Your task to perform on an android device: change keyboard looks Image 0: 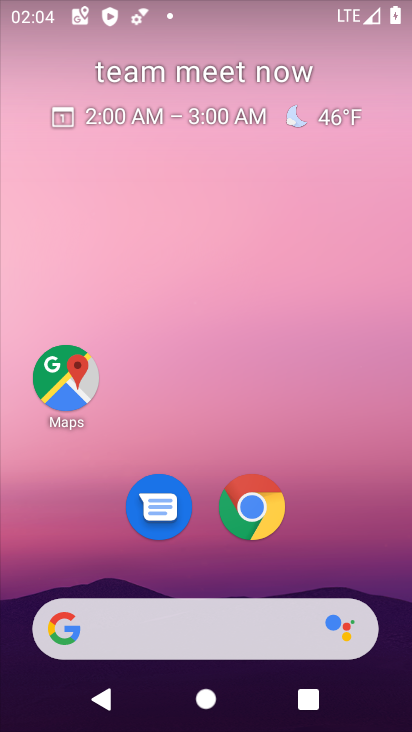
Step 0: drag from (268, 668) to (267, 292)
Your task to perform on an android device: change keyboard looks Image 1: 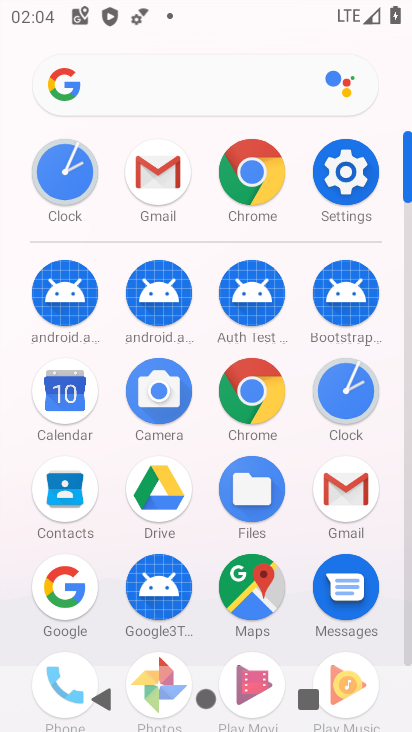
Step 1: click (359, 186)
Your task to perform on an android device: change keyboard looks Image 2: 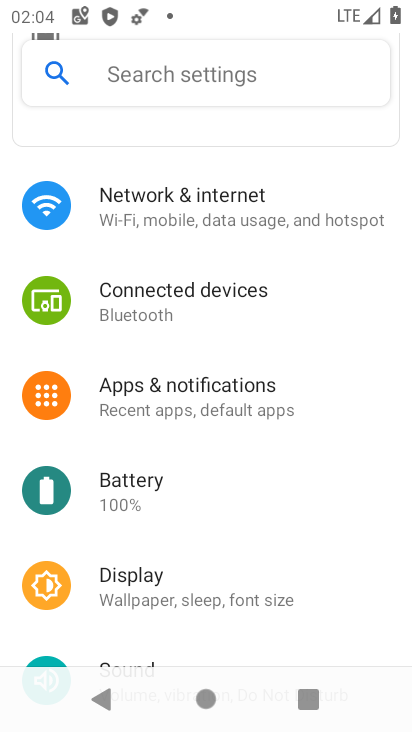
Step 2: click (208, 82)
Your task to perform on an android device: change keyboard looks Image 3: 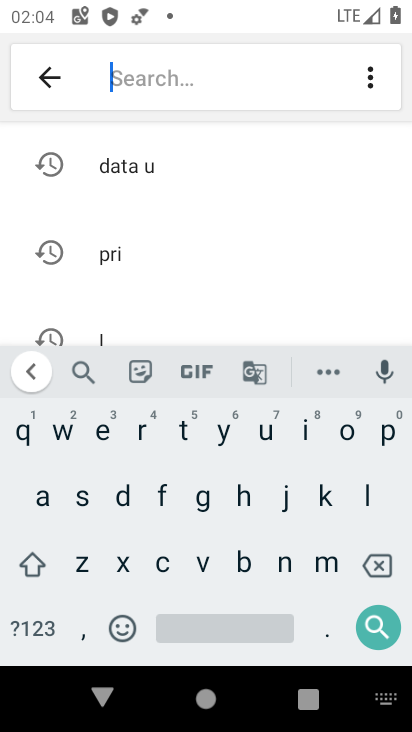
Step 3: click (331, 493)
Your task to perform on an android device: change keyboard looks Image 4: 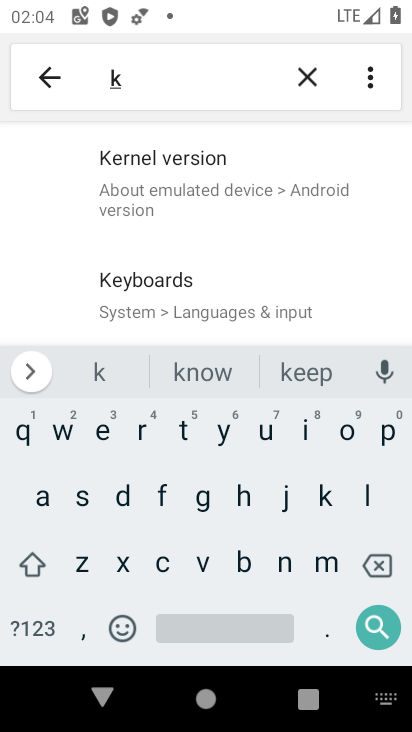
Step 4: click (155, 277)
Your task to perform on an android device: change keyboard looks Image 5: 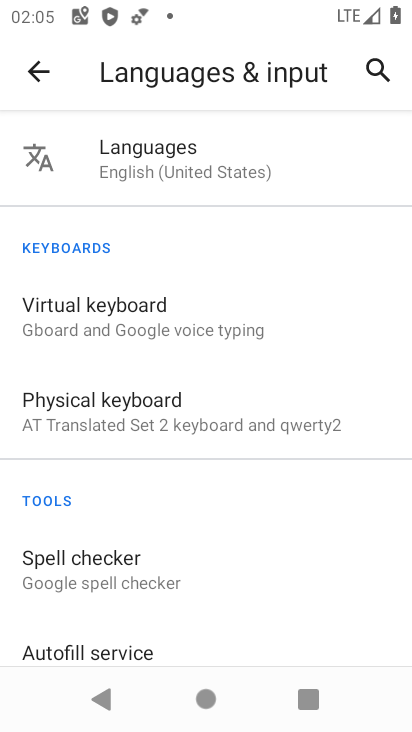
Step 5: click (155, 323)
Your task to perform on an android device: change keyboard looks Image 6: 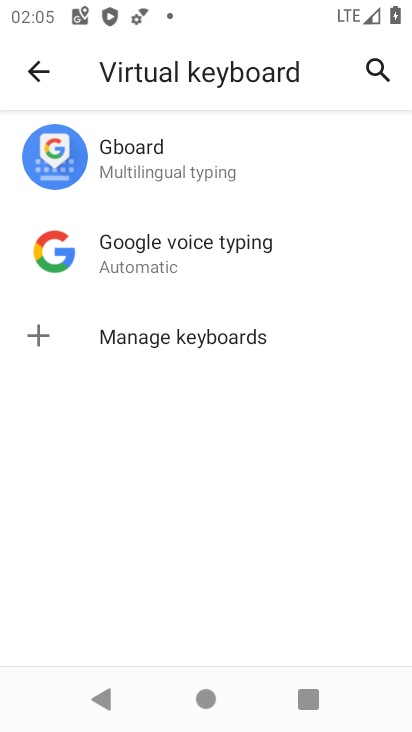
Step 6: click (155, 183)
Your task to perform on an android device: change keyboard looks Image 7: 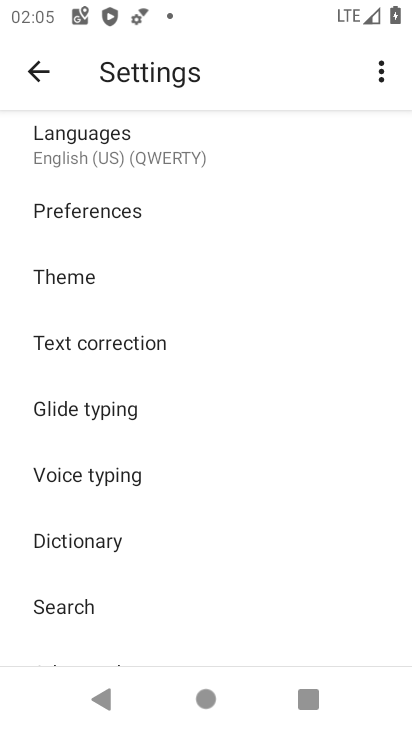
Step 7: click (60, 281)
Your task to perform on an android device: change keyboard looks Image 8: 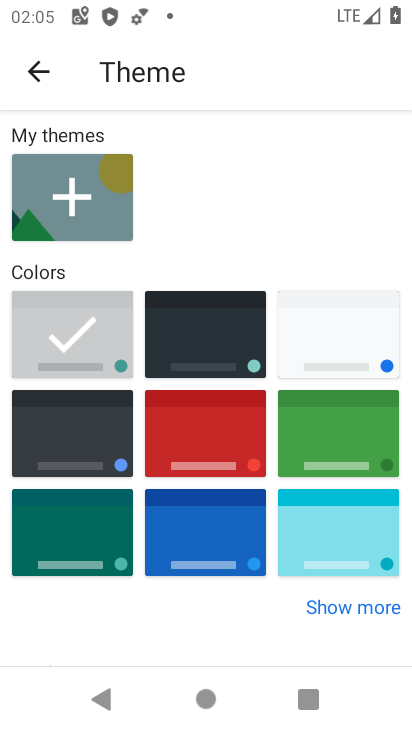
Step 8: click (44, 533)
Your task to perform on an android device: change keyboard looks Image 9: 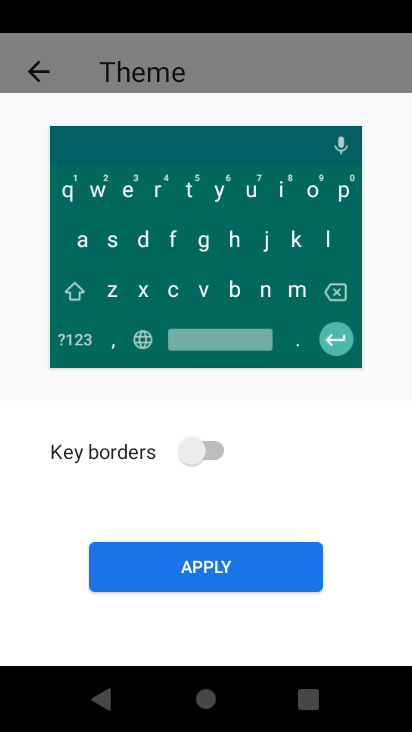
Step 9: click (212, 451)
Your task to perform on an android device: change keyboard looks Image 10: 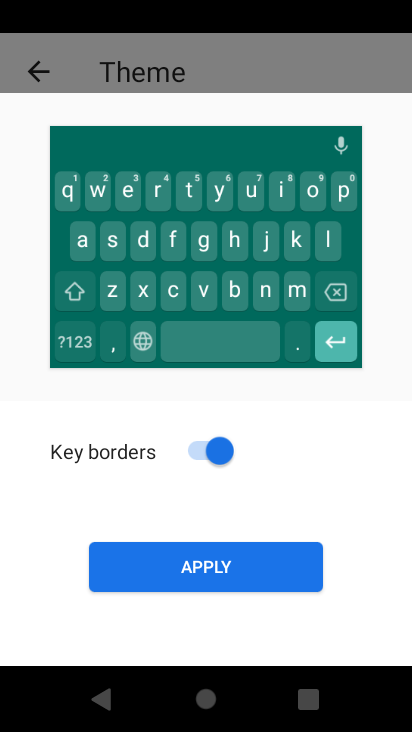
Step 10: click (220, 557)
Your task to perform on an android device: change keyboard looks Image 11: 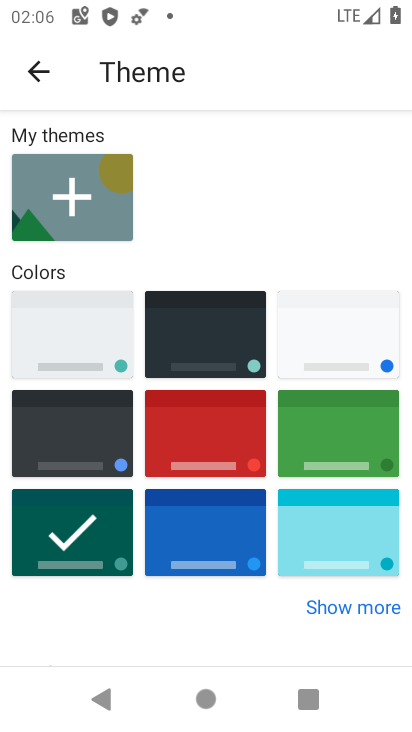
Step 11: task complete